Your task to perform on an android device: snooze an email in the gmail app Image 0: 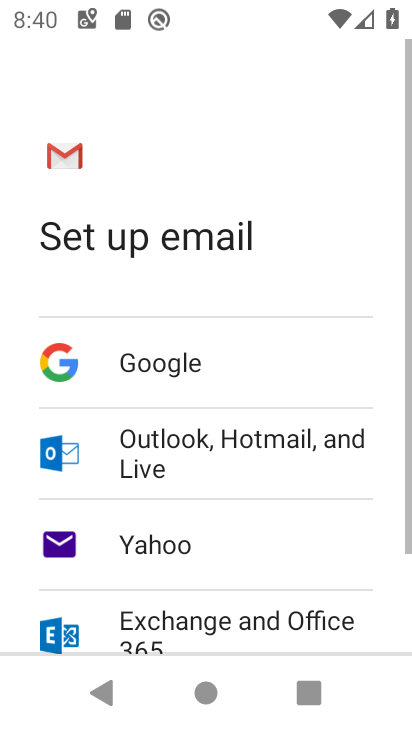
Step 0: press home button
Your task to perform on an android device: snooze an email in the gmail app Image 1: 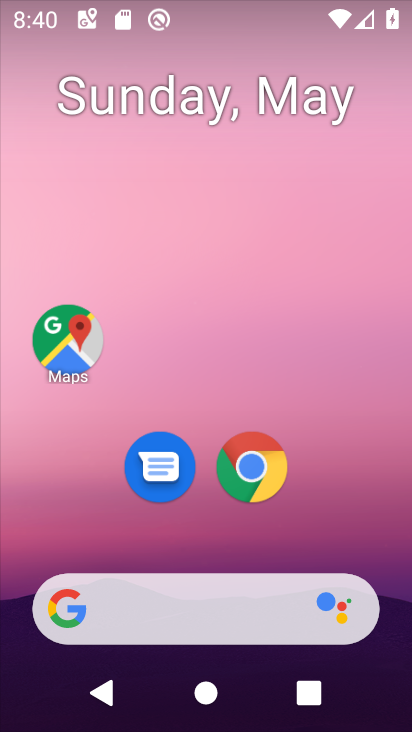
Step 1: drag from (364, 543) to (355, 133)
Your task to perform on an android device: snooze an email in the gmail app Image 2: 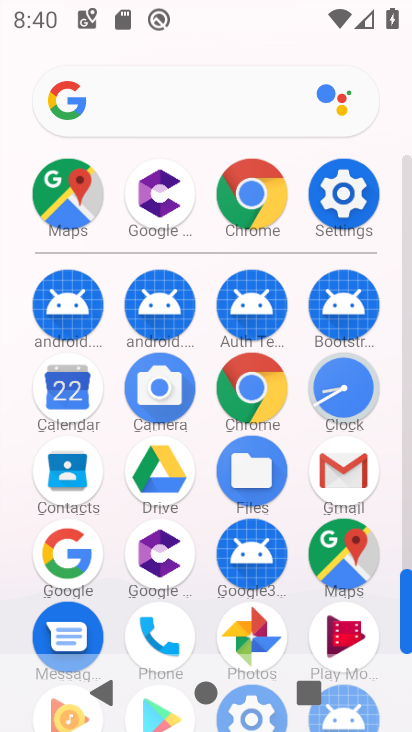
Step 2: click (347, 213)
Your task to perform on an android device: snooze an email in the gmail app Image 3: 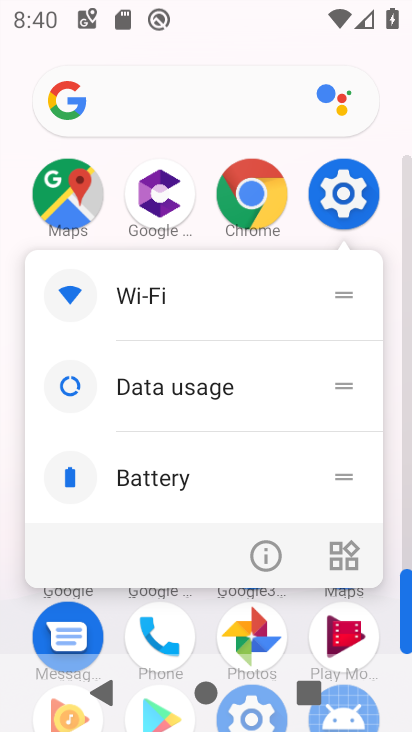
Step 3: click (347, 213)
Your task to perform on an android device: snooze an email in the gmail app Image 4: 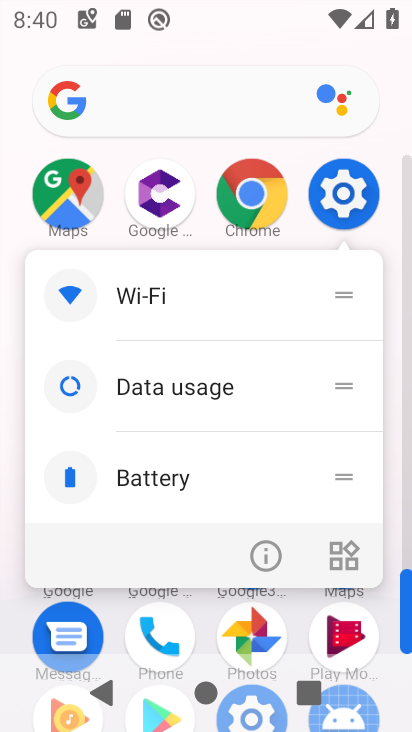
Step 4: click (375, 196)
Your task to perform on an android device: snooze an email in the gmail app Image 5: 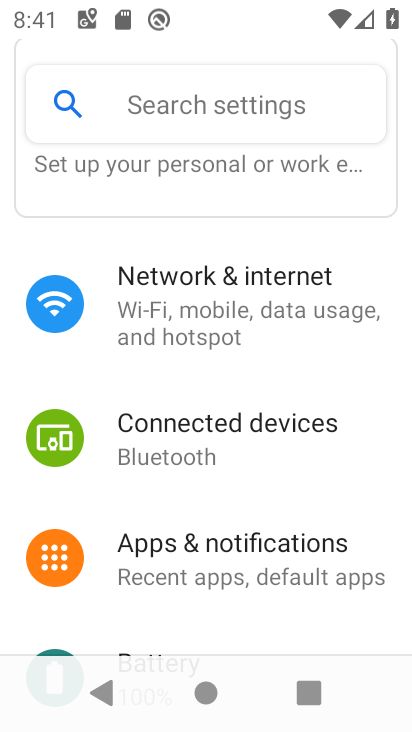
Step 5: drag from (293, 603) to (299, 240)
Your task to perform on an android device: snooze an email in the gmail app Image 6: 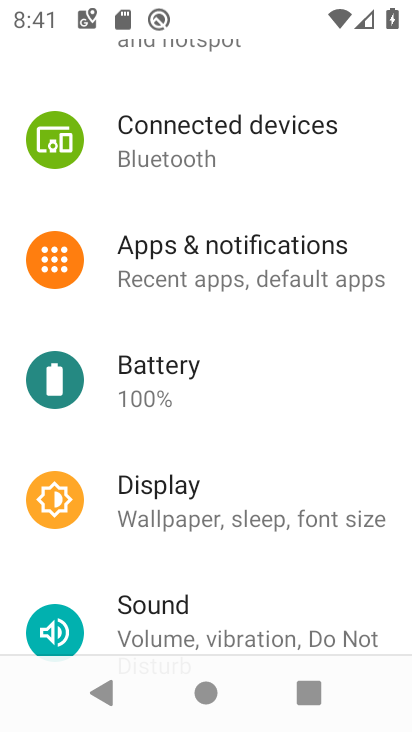
Step 6: press home button
Your task to perform on an android device: snooze an email in the gmail app Image 7: 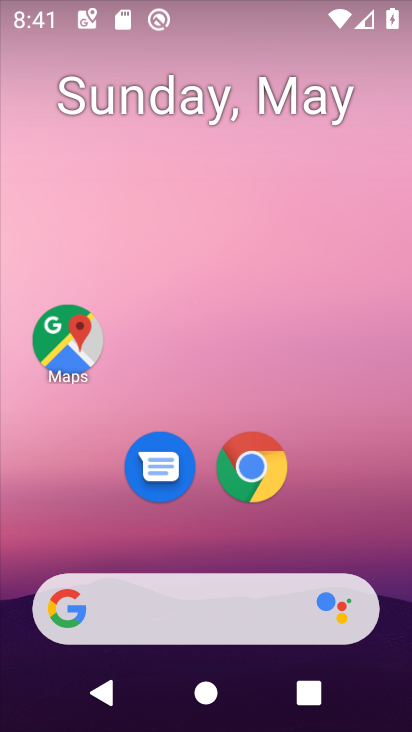
Step 7: drag from (353, 512) to (356, 222)
Your task to perform on an android device: snooze an email in the gmail app Image 8: 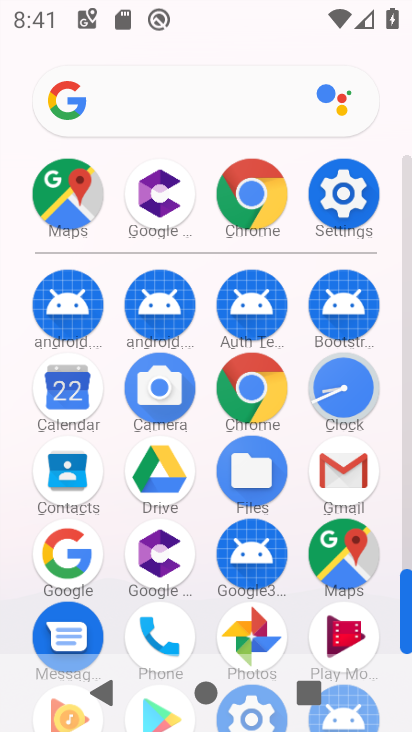
Step 8: click (330, 486)
Your task to perform on an android device: snooze an email in the gmail app Image 9: 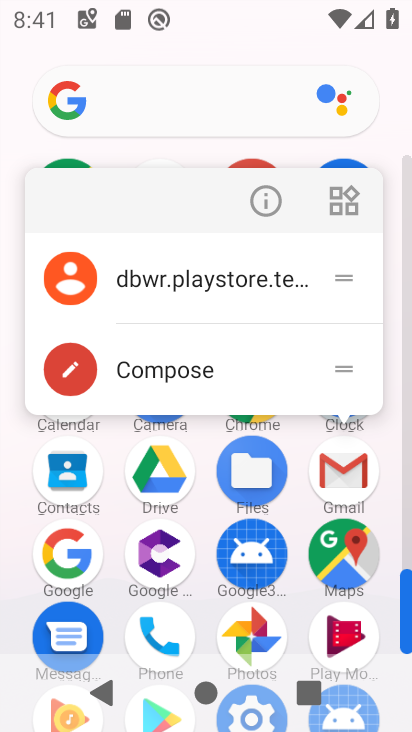
Step 9: click (336, 479)
Your task to perform on an android device: snooze an email in the gmail app Image 10: 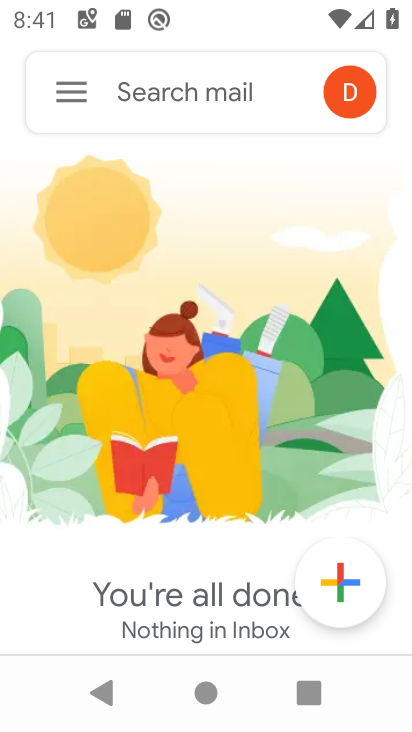
Step 10: click (67, 90)
Your task to perform on an android device: snooze an email in the gmail app Image 11: 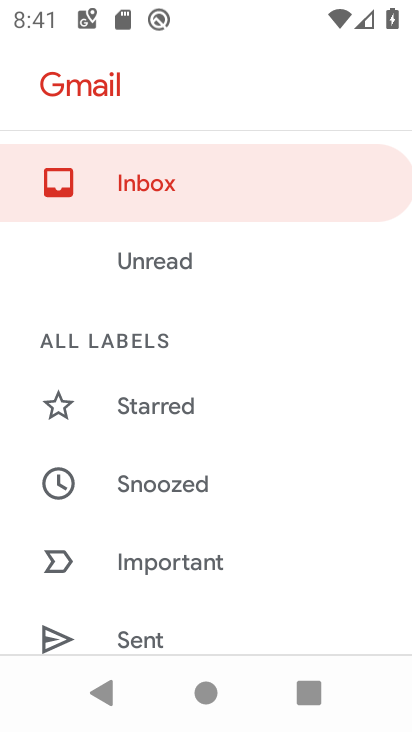
Step 11: drag from (248, 533) to (240, 241)
Your task to perform on an android device: snooze an email in the gmail app Image 12: 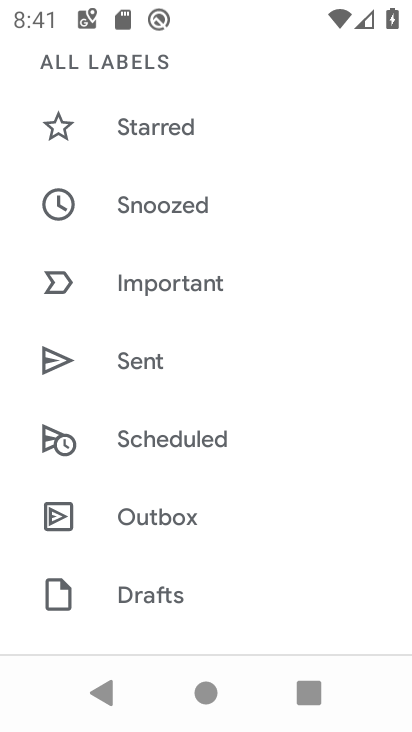
Step 12: click (209, 206)
Your task to perform on an android device: snooze an email in the gmail app Image 13: 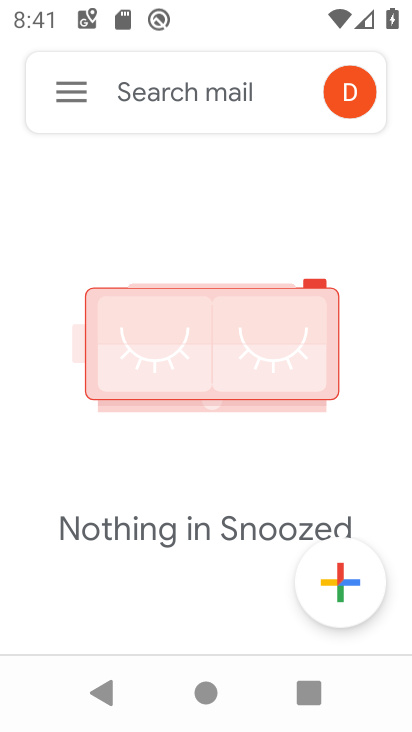
Step 13: task complete